Your task to perform on an android device: search for starred emails in the gmail app Image 0: 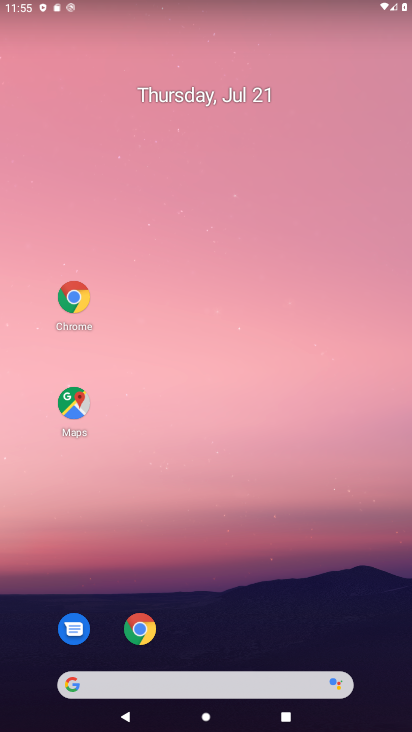
Step 0: drag from (180, 266) to (257, 314)
Your task to perform on an android device: search for starred emails in the gmail app Image 1: 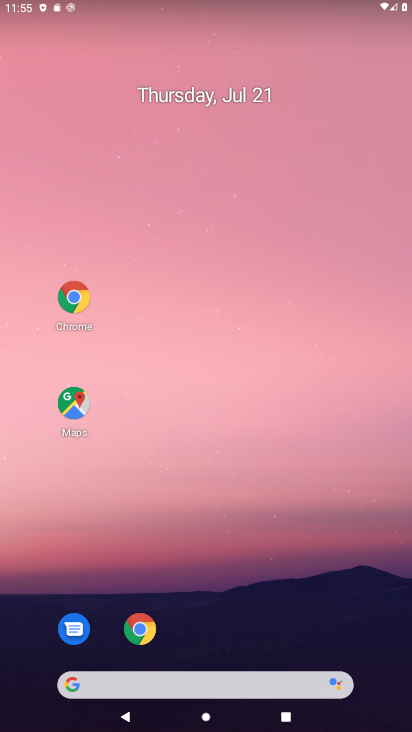
Step 1: drag from (251, 559) to (230, 265)
Your task to perform on an android device: search for starred emails in the gmail app Image 2: 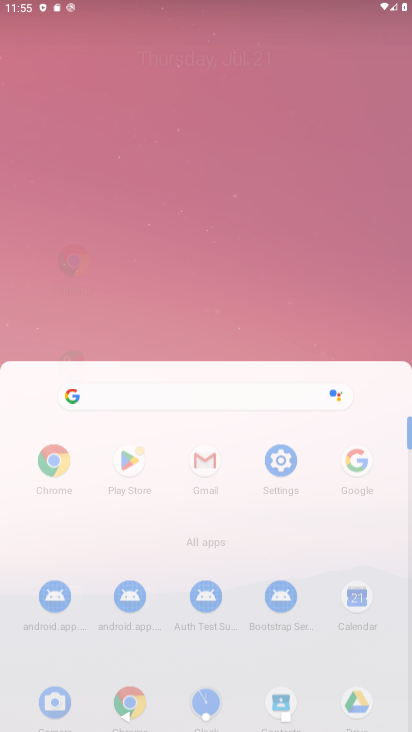
Step 2: drag from (231, 609) to (224, 205)
Your task to perform on an android device: search for starred emails in the gmail app Image 3: 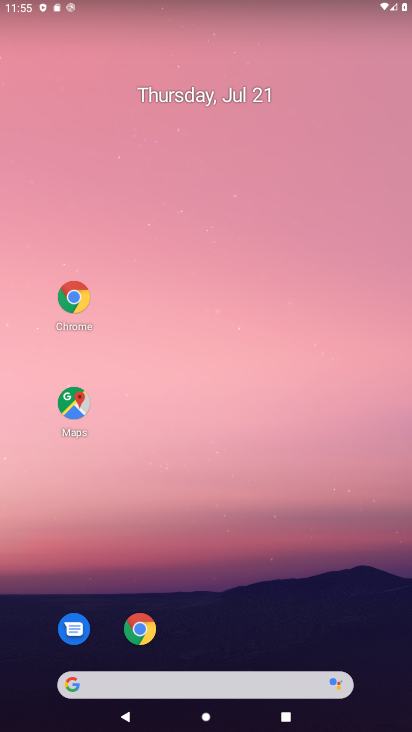
Step 3: drag from (220, 504) to (220, 162)
Your task to perform on an android device: search for starred emails in the gmail app Image 4: 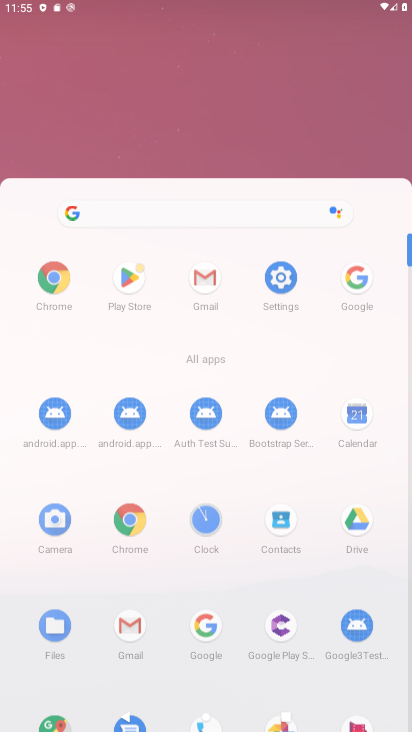
Step 4: drag from (219, 553) to (214, 154)
Your task to perform on an android device: search for starred emails in the gmail app Image 5: 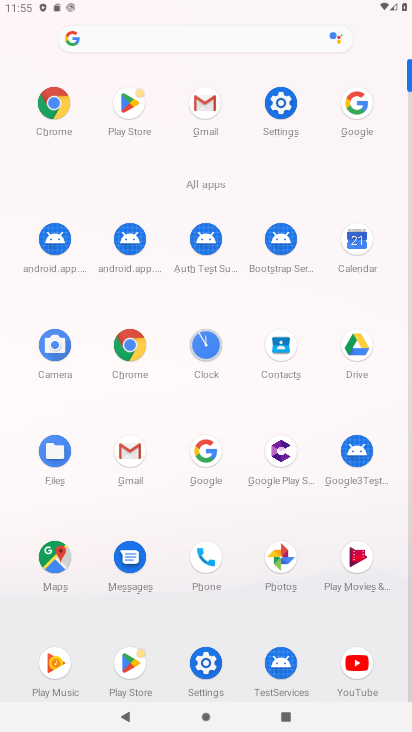
Step 5: drag from (241, 307) to (259, 152)
Your task to perform on an android device: search for starred emails in the gmail app Image 6: 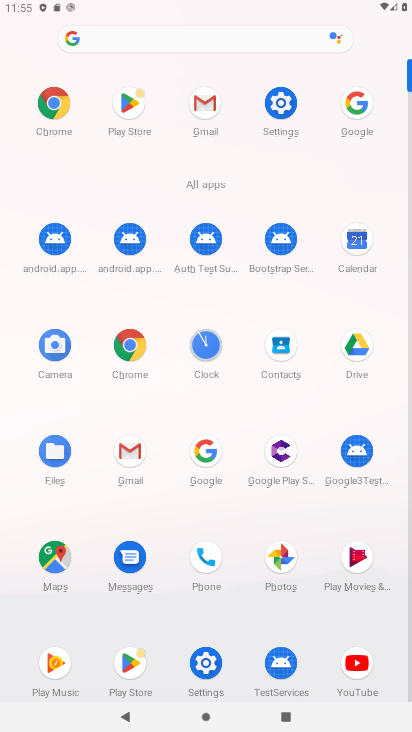
Step 6: click (136, 438)
Your task to perform on an android device: search for starred emails in the gmail app Image 7: 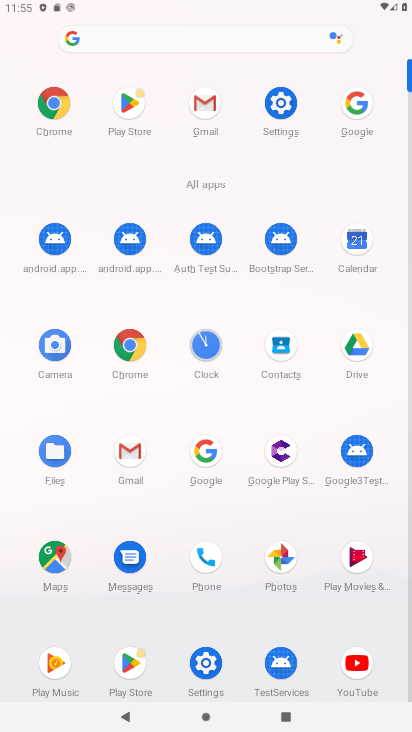
Step 7: click (133, 445)
Your task to perform on an android device: search for starred emails in the gmail app Image 8: 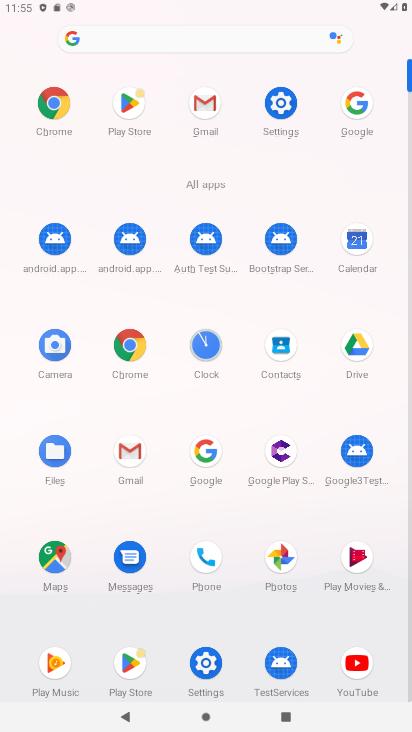
Step 8: click (133, 445)
Your task to perform on an android device: search for starred emails in the gmail app Image 9: 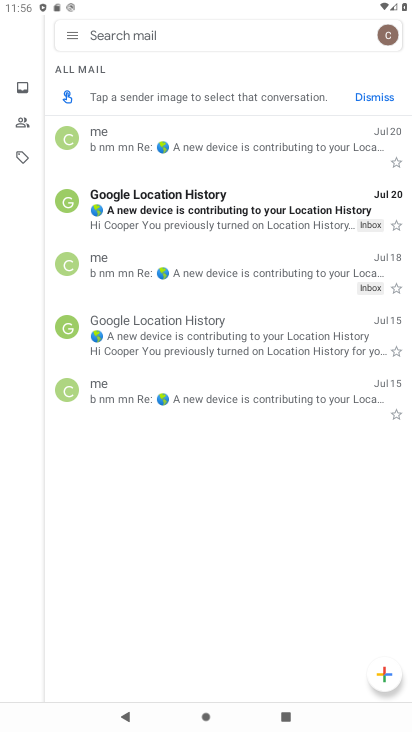
Step 9: click (64, 35)
Your task to perform on an android device: search for starred emails in the gmail app Image 10: 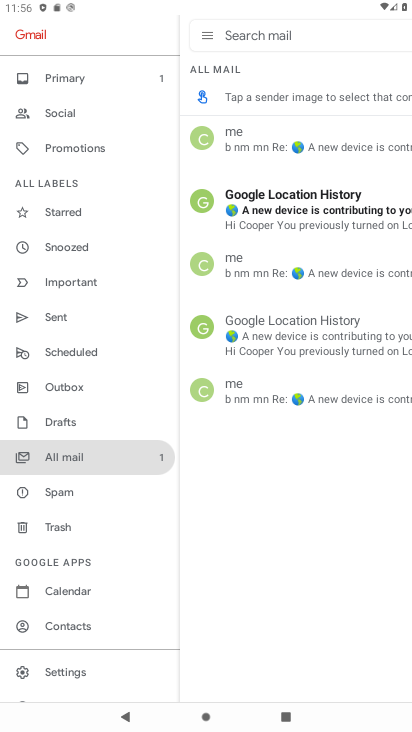
Step 10: click (59, 250)
Your task to perform on an android device: search for starred emails in the gmail app Image 11: 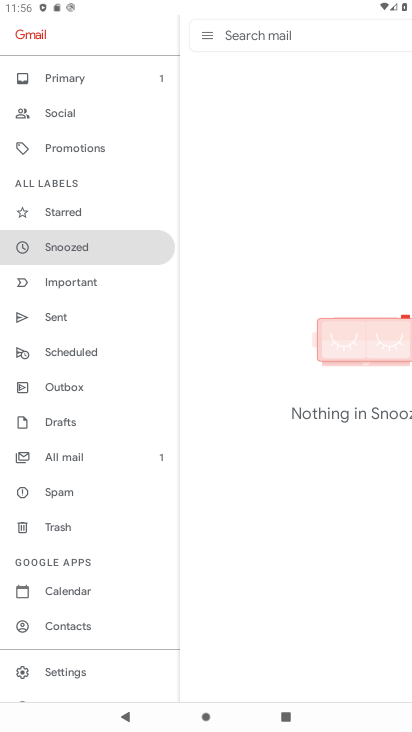
Step 11: click (64, 209)
Your task to perform on an android device: search for starred emails in the gmail app Image 12: 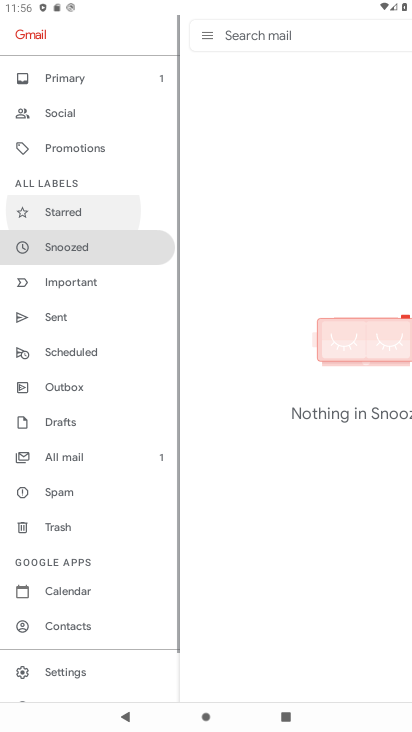
Step 12: click (62, 208)
Your task to perform on an android device: search for starred emails in the gmail app Image 13: 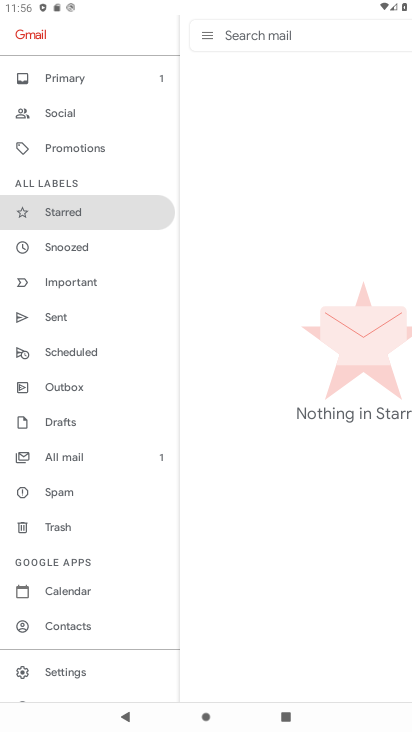
Step 13: task complete